Your task to perform on an android device: Open the calendar app, open the side menu, and click the "Day" option Image 0: 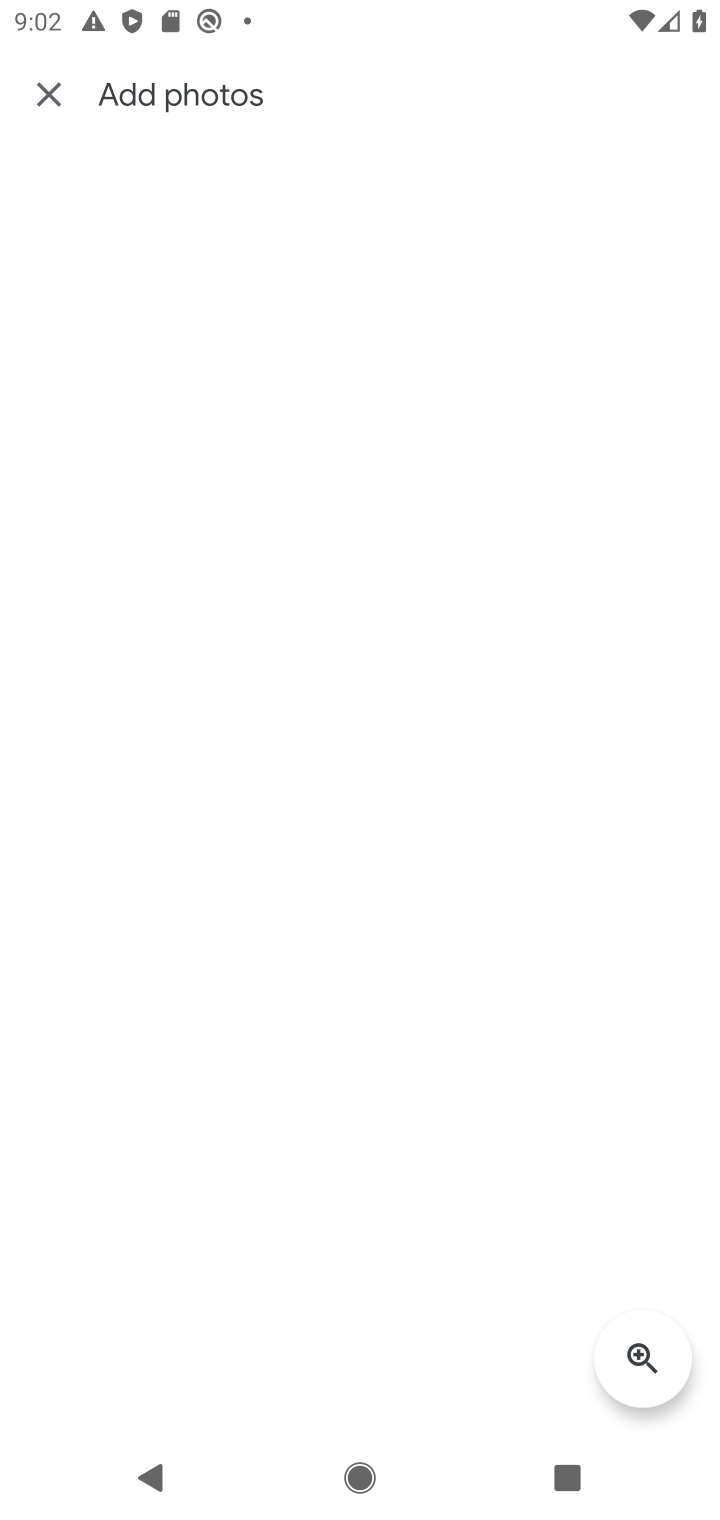
Step 0: press home button
Your task to perform on an android device: Open the calendar app, open the side menu, and click the "Day" option Image 1: 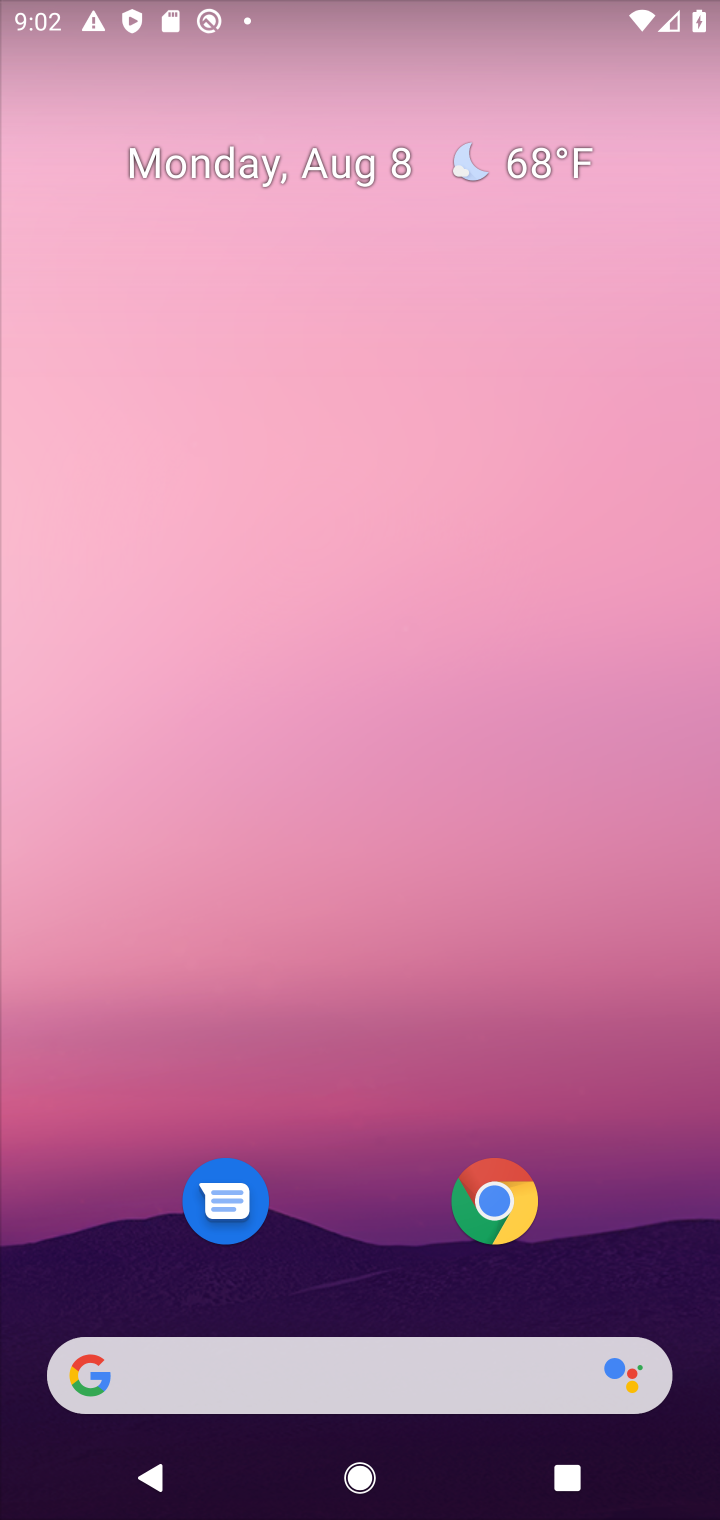
Step 1: drag from (583, 941) to (597, 257)
Your task to perform on an android device: Open the calendar app, open the side menu, and click the "Day" option Image 2: 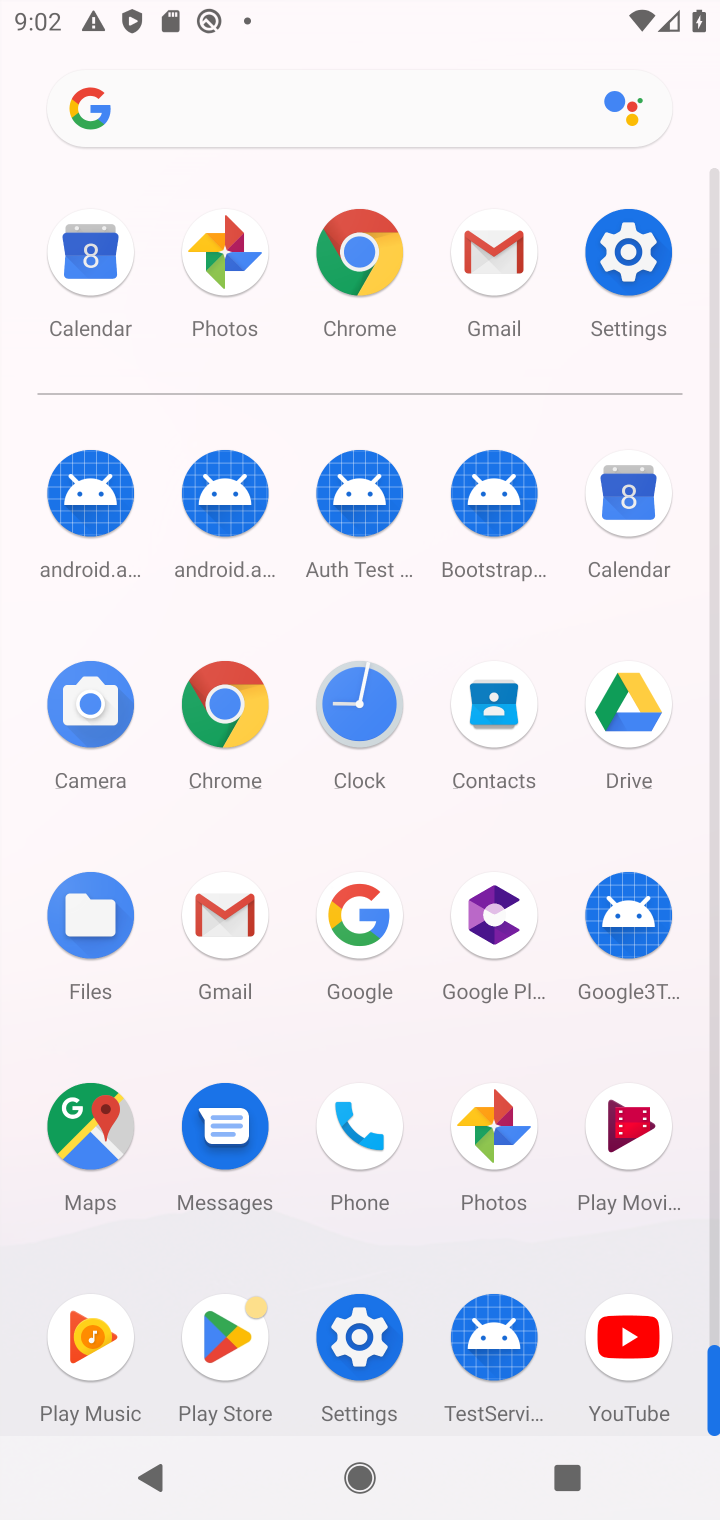
Step 2: click (633, 483)
Your task to perform on an android device: Open the calendar app, open the side menu, and click the "Day" option Image 3: 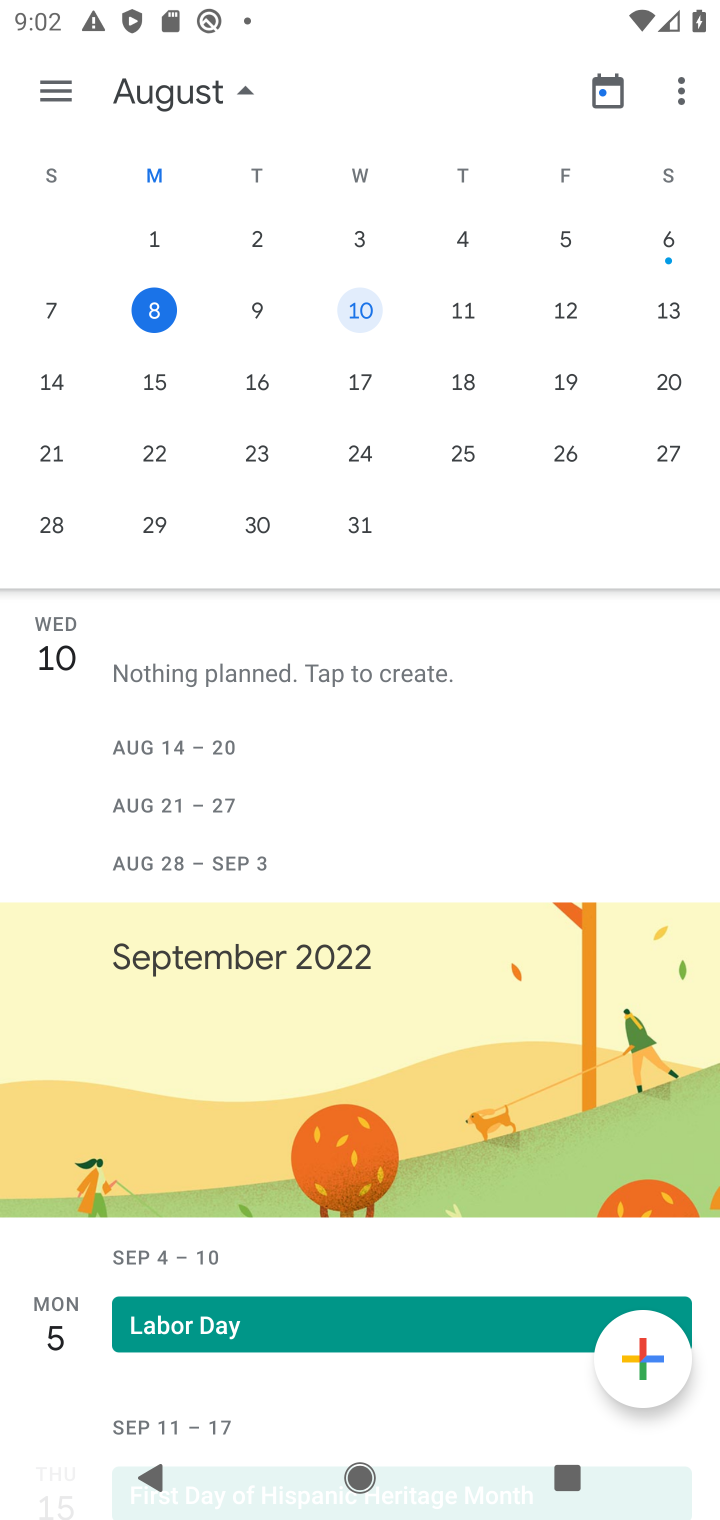
Step 3: click (58, 75)
Your task to perform on an android device: Open the calendar app, open the side menu, and click the "Day" option Image 4: 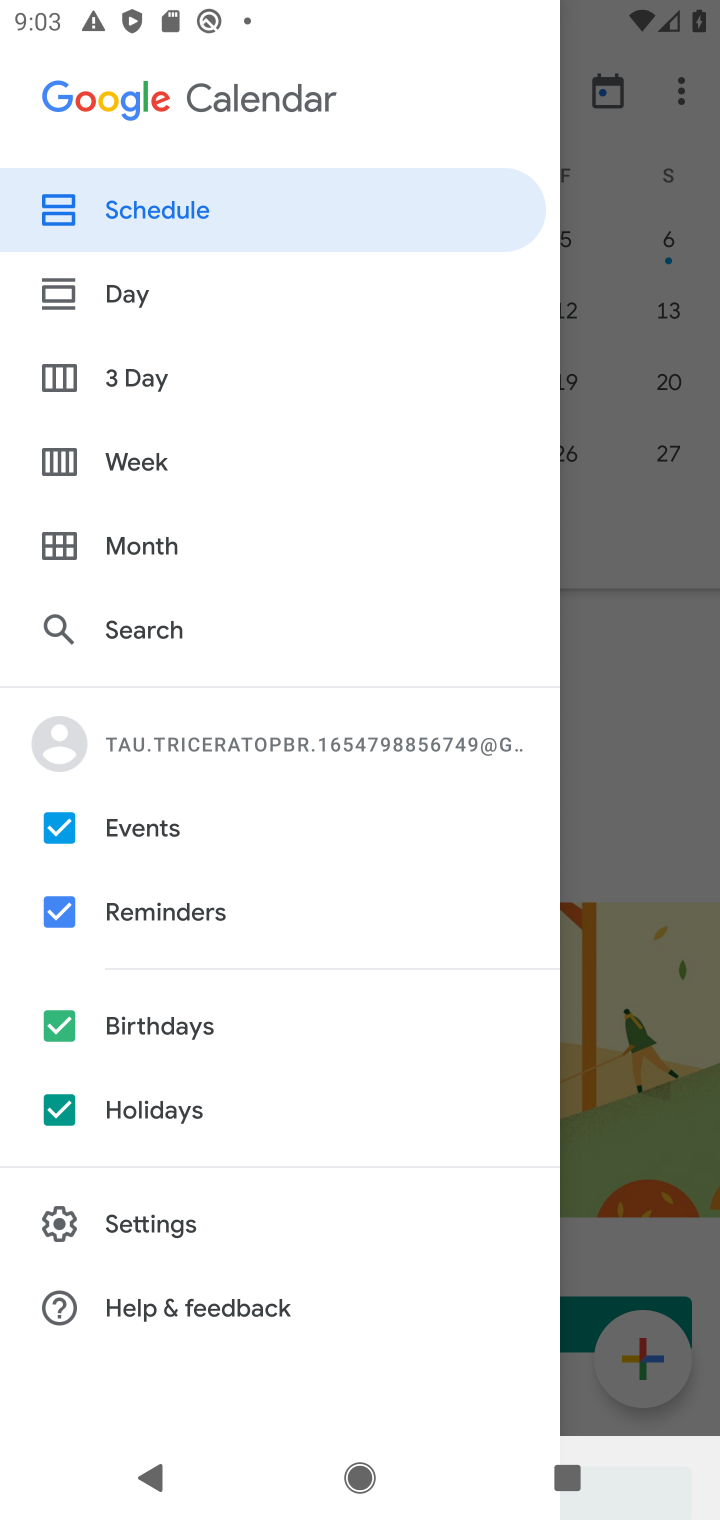
Step 4: click (132, 298)
Your task to perform on an android device: Open the calendar app, open the side menu, and click the "Day" option Image 5: 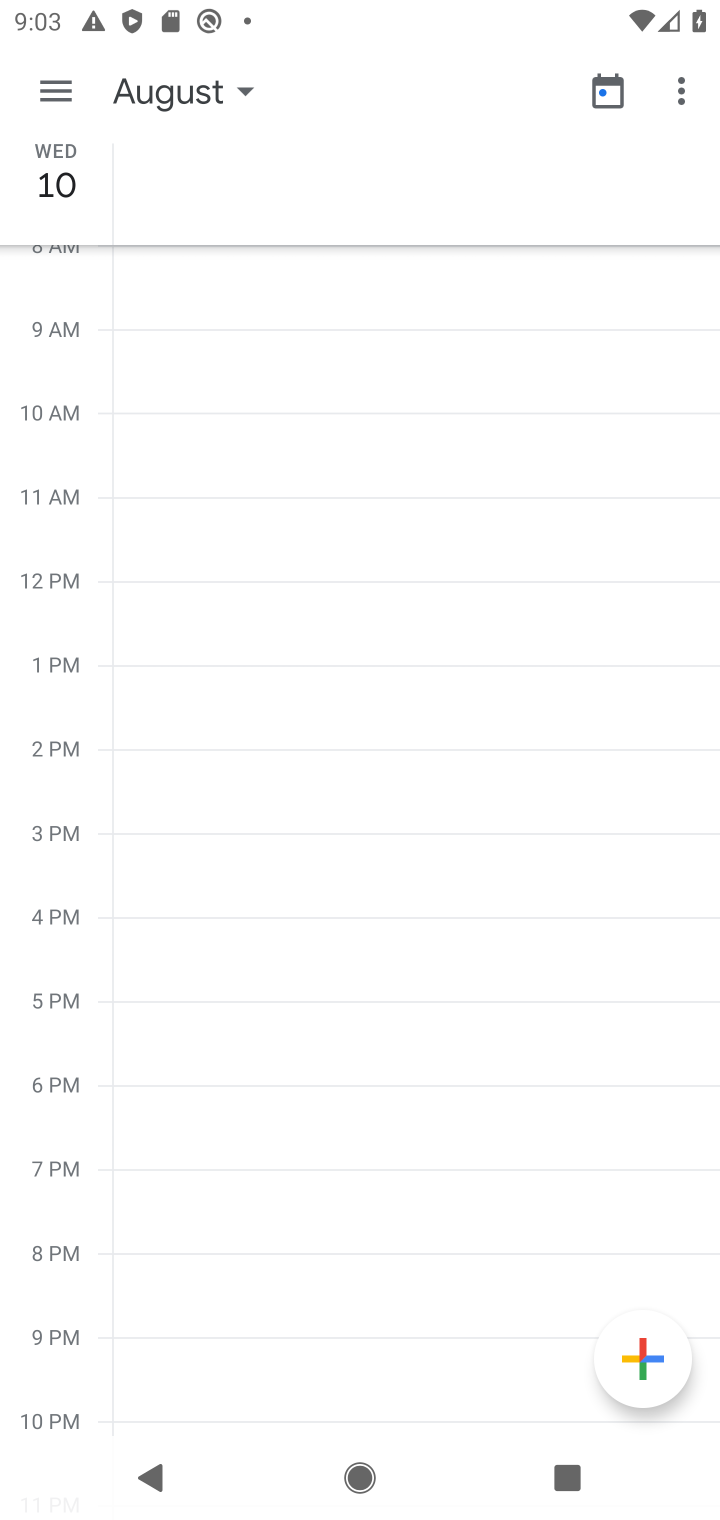
Step 5: task complete